Your task to perform on an android device: turn on notifications settings in the gmail app Image 0: 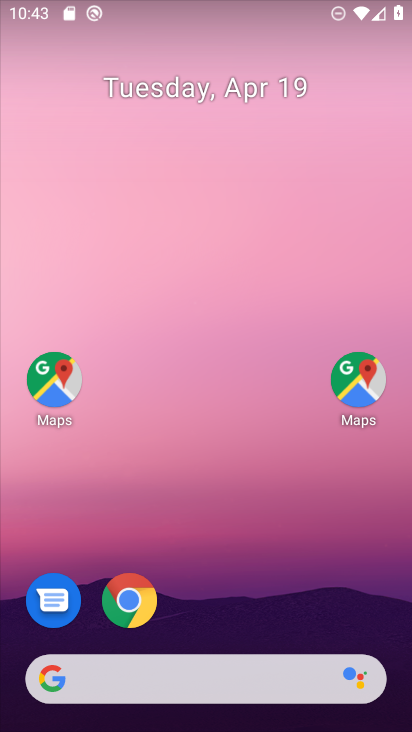
Step 0: drag from (354, 660) to (271, 0)
Your task to perform on an android device: turn on notifications settings in the gmail app Image 1: 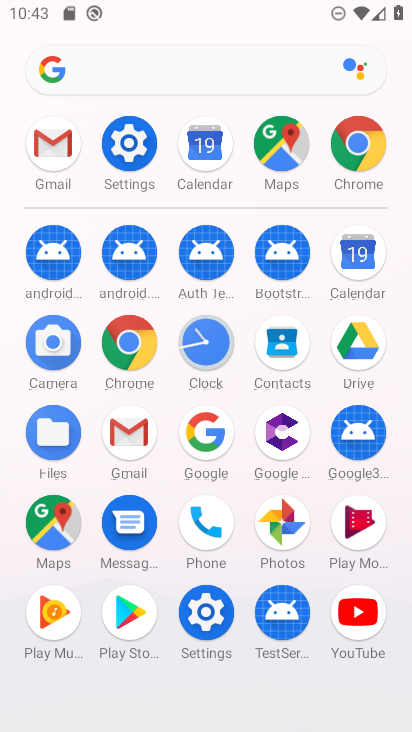
Step 1: click (133, 440)
Your task to perform on an android device: turn on notifications settings in the gmail app Image 2: 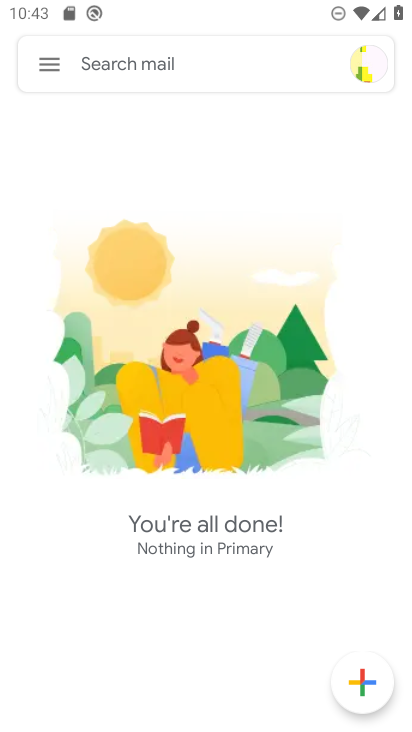
Step 2: click (47, 47)
Your task to perform on an android device: turn on notifications settings in the gmail app Image 3: 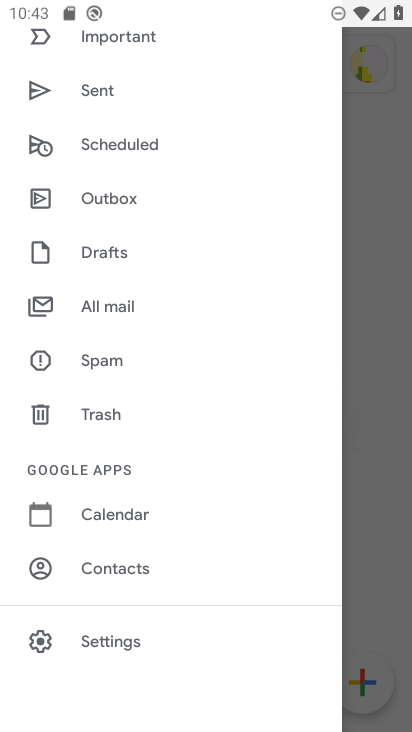
Step 3: click (163, 649)
Your task to perform on an android device: turn on notifications settings in the gmail app Image 4: 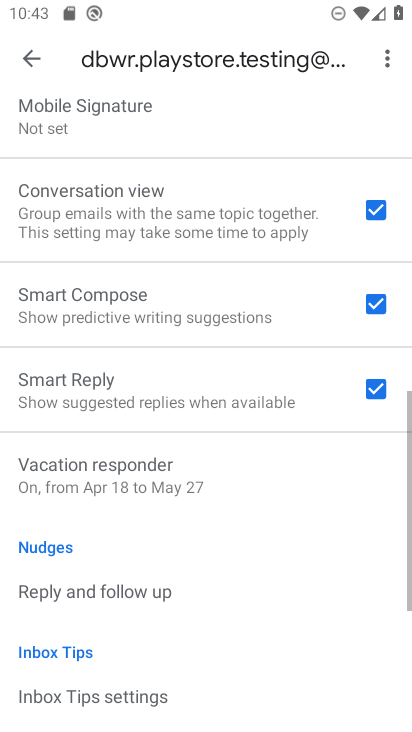
Step 4: drag from (163, 649) to (202, 129)
Your task to perform on an android device: turn on notifications settings in the gmail app Image 5: 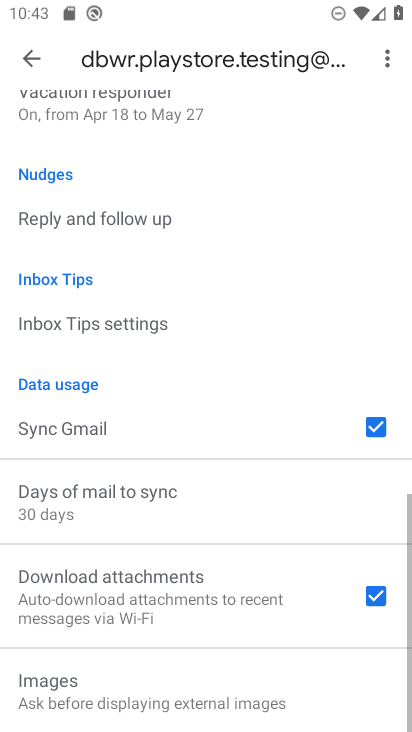
Step 5: drag from (211, 701) to (204, 287)
Your task to perform on an android device: turn on notifications settings in the gmail app Image 6: 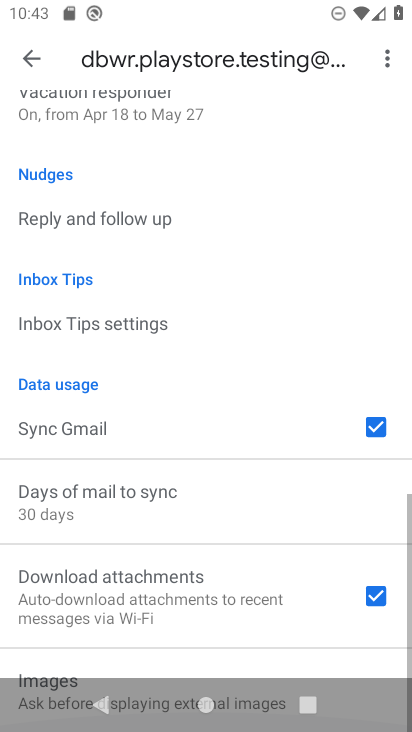
Step 6: drag from (153, 257) to (208, 648)
Your task to perform on an android device: turn on notifications settings in the gmail app Image 7: 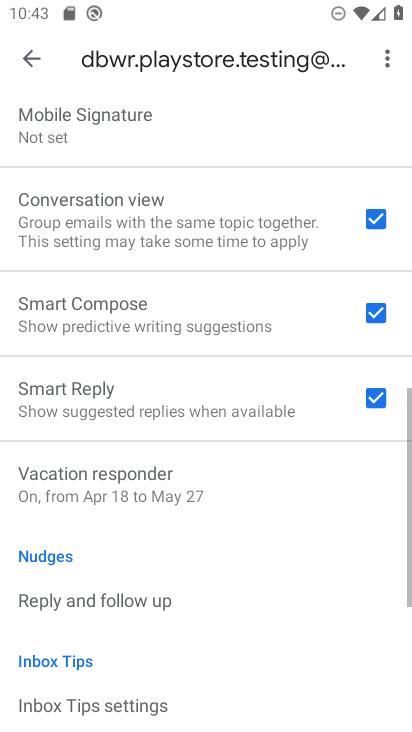
Step 7: drag from (172, 292) to (216, 692)
Your task to perform on an android device: turn on notifications settings in the gmail app Image 8: 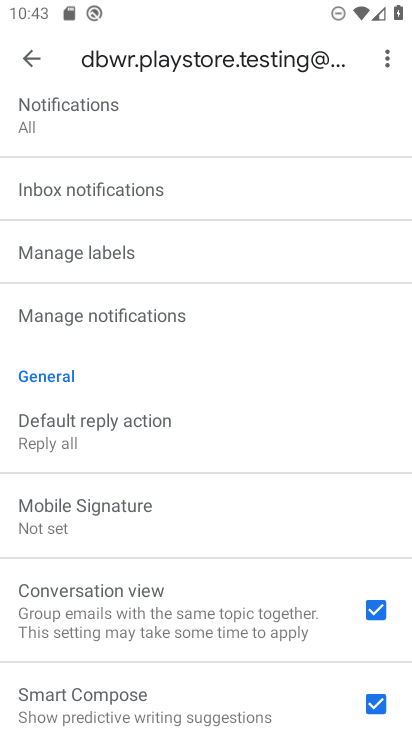
Step 8: click (141, 307)
Your task to perform on an android device: turn on notifications settings in the gmail app Image 9: 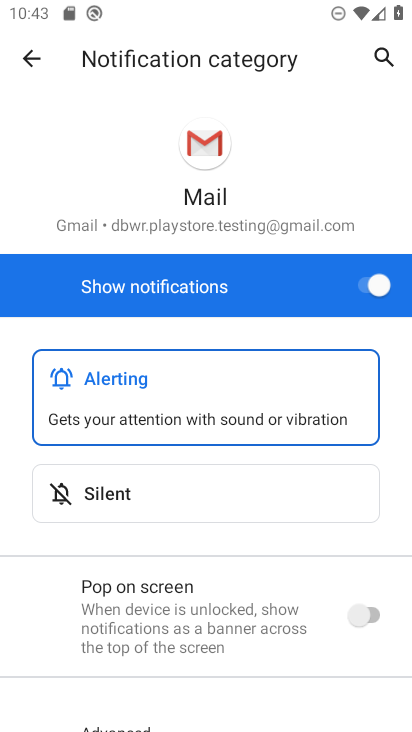
Step 9: task complete